Your task to perform on an android device: Go to battery settings Image 0: 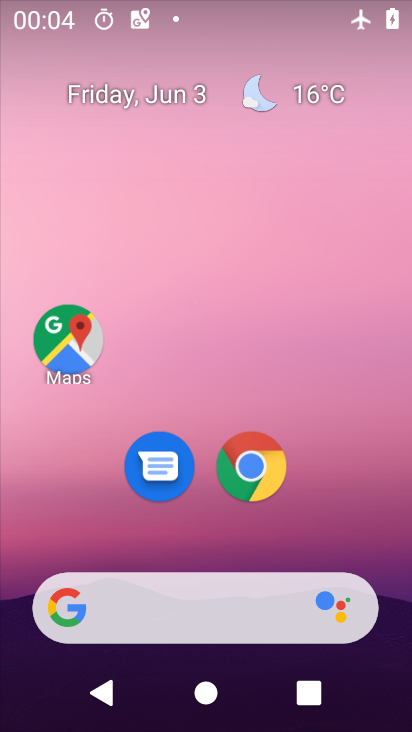
Step 0: drag from (200, 535) to (200, 202)
Your task to perform on an android device: Go to battery settings Image 1: 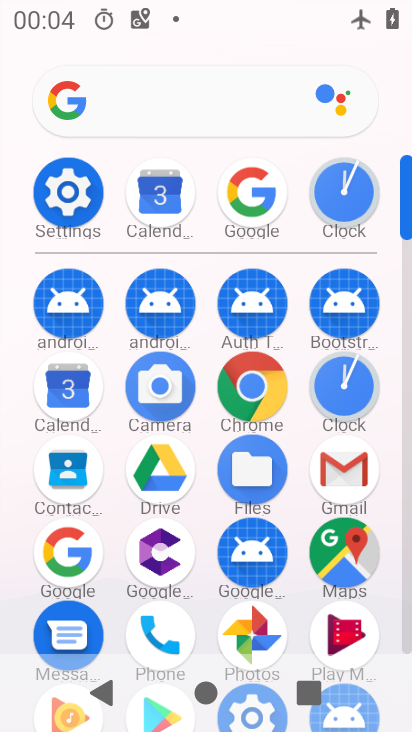
Step 1: click (60, 220)
Your task to perform on an android device: Go to battery settings Image 2: 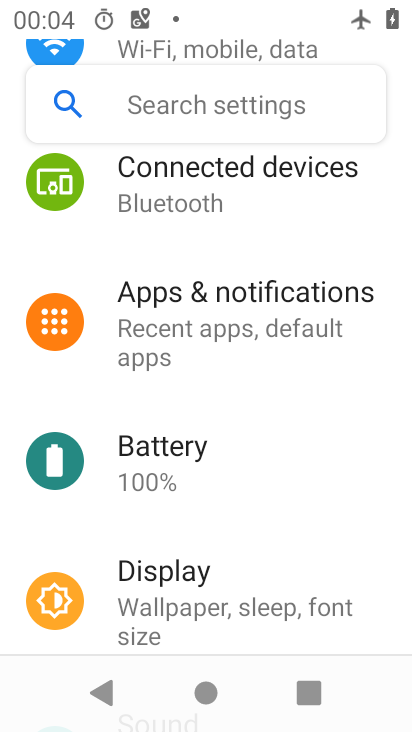
Step 2: click (194, 477)
Your task to perform on an android device: Go to battery settings Image 3: 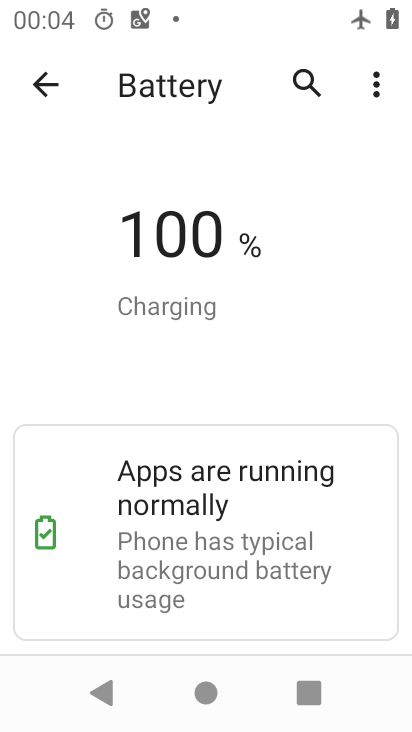
Step 3: task complete